Your task to perform on an android device: turn on sleep mode Image 0: 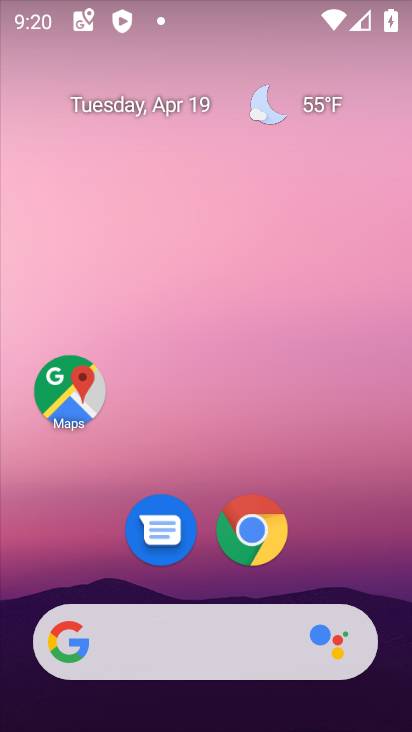
Step 0: drag from (62, 554) to (124, 30)
Your task to perform on an android device: turn on sleep mode Image 1: 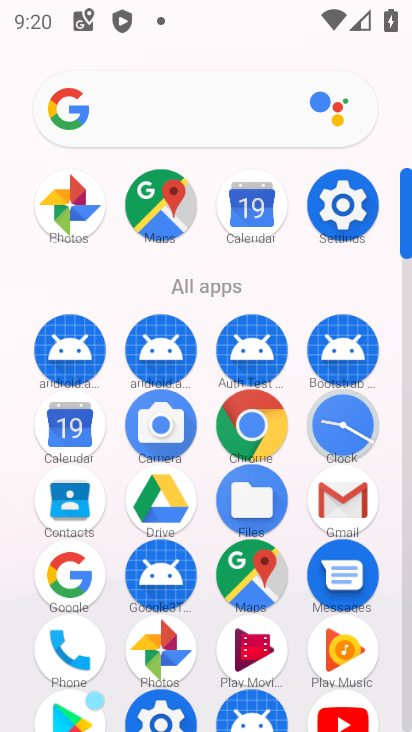
Step 1: click (344, 203)
Your task to perform on an android device: turn on sleep mode Image 2: 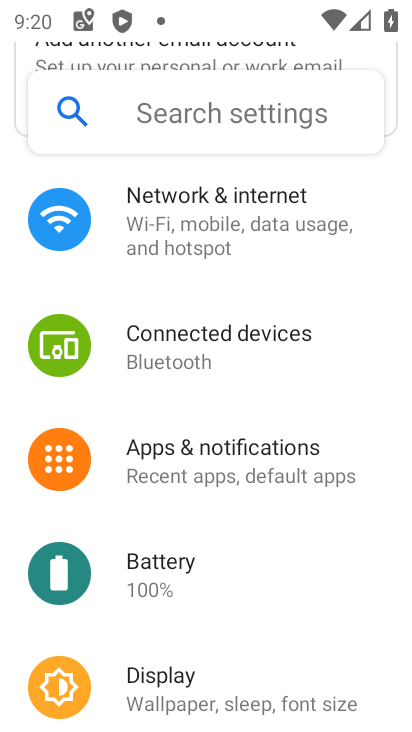
Step 2: click (205, 693)
Your task to perform on an android device: turn on sleep mode Image 3: 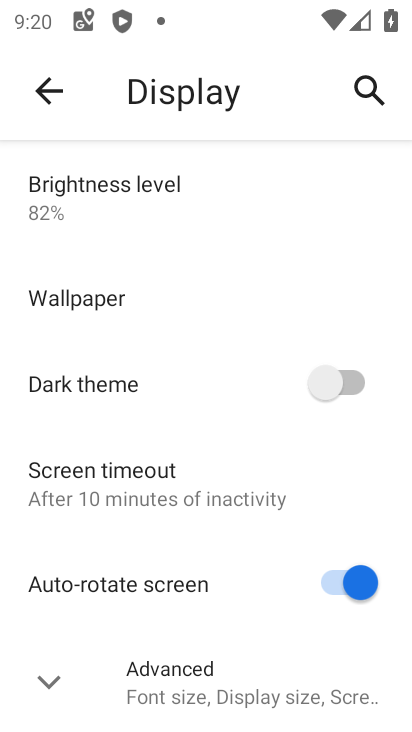
Step 3: click (122, 488)
Your task to perform on an android device: turn on sleep mode Image 4: 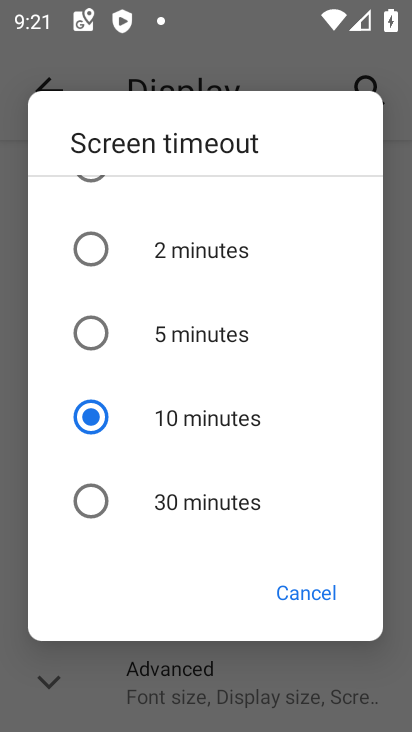
Step 4: task complete